Your task to perform on an android device: turn off wifi Image 0: 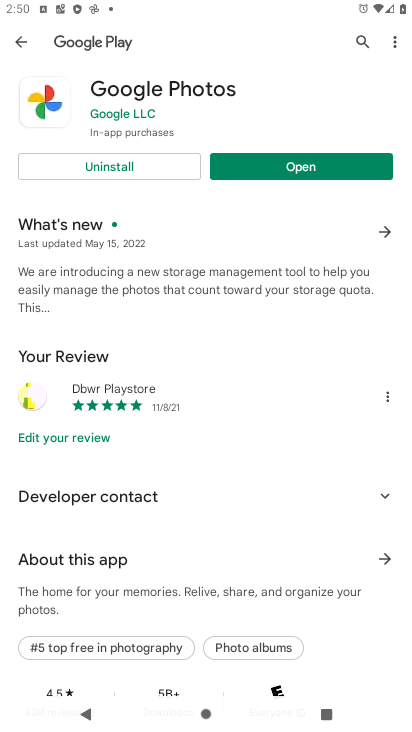
Step 0: press home button
Your task to perform on an android device: turn off wifi Image 1: 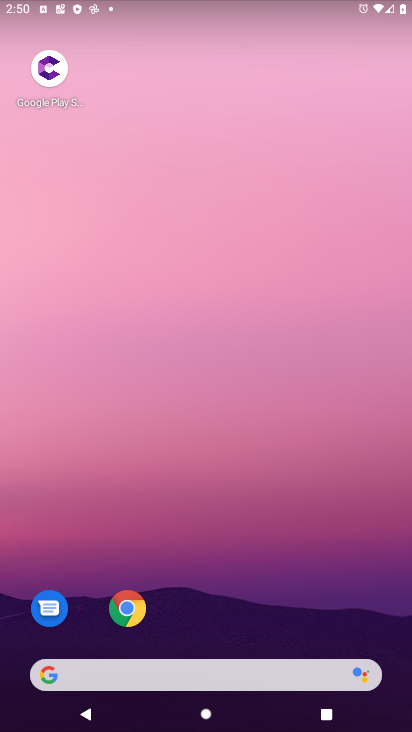
Step 1: drag from (330, 635) to (309, 122)
Your task to perform on an android device: turn off wifi Image 2: 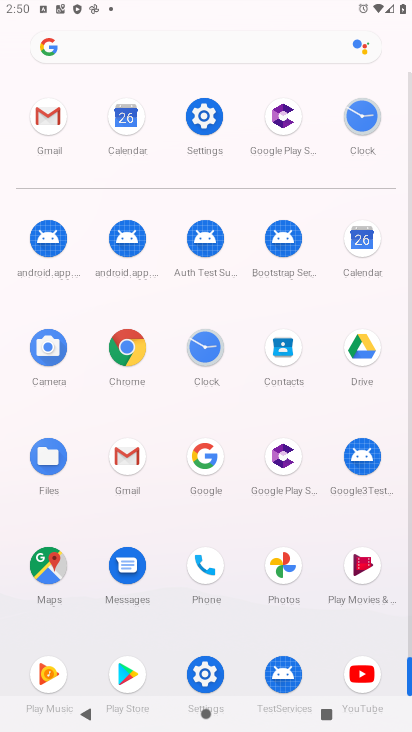
Step 2: click (201, 671)
Your task to perform on an android device: turn off wifi Image 3: 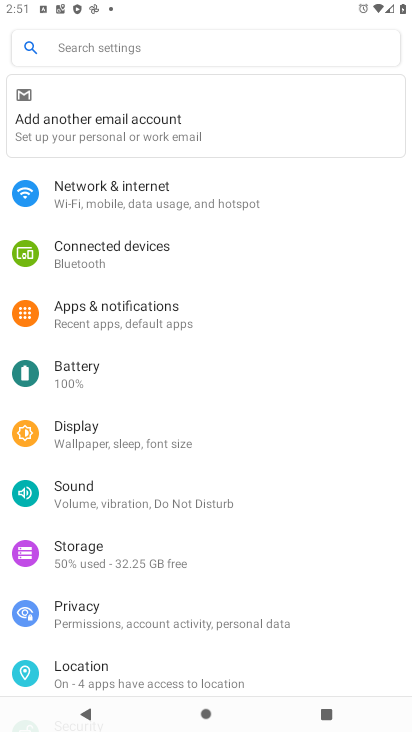
Step 3: click (105, 186)
Your task to perform on an android device: turn off wifi Image 4: 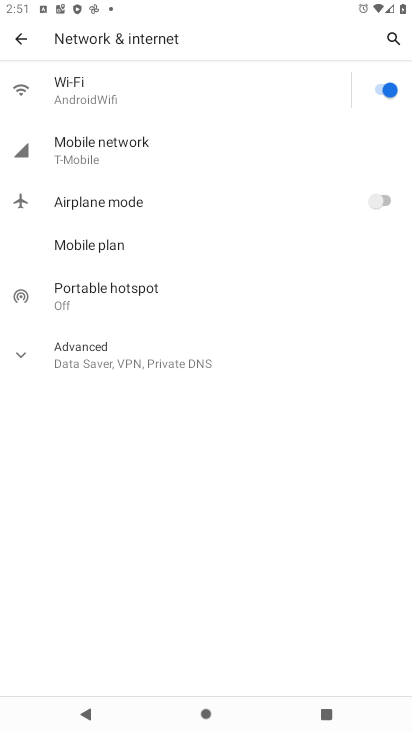
Step 4: click (375, 90)
Your task to perform on an android device: turn off wifi Image 5: 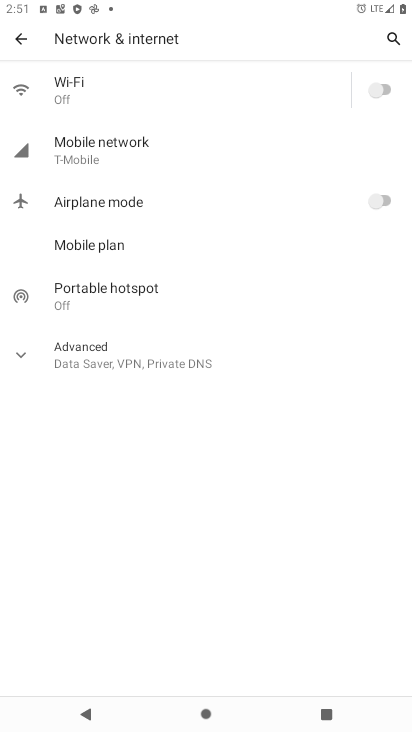
Step 5: task complete